Your task to perform on an android device: find which apps use the phone's location Image 0: 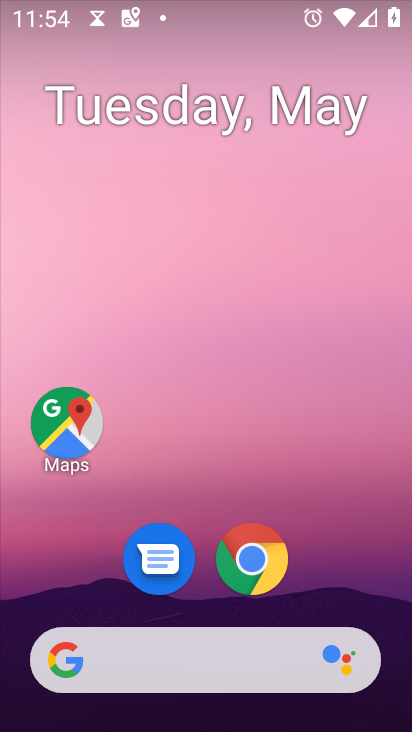
Step 0: drag from (363, 517) to (361, 56)
Your task to perform on an android device: find which apps use the phone's location Image 1: 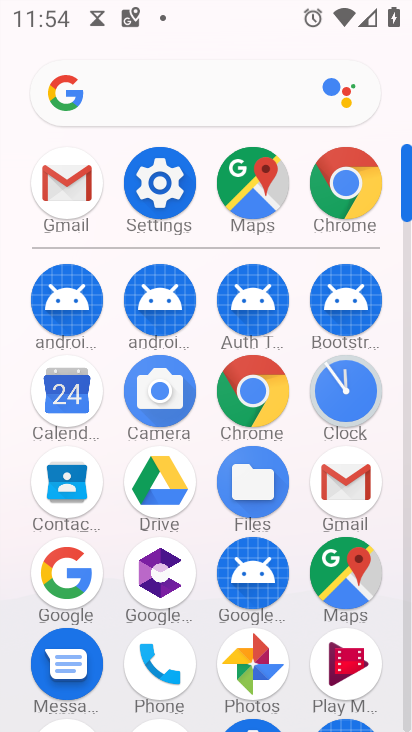
Step 1: click (173, 161)
Your task to perform on an android device: find which apps use the phone's location Image 2: 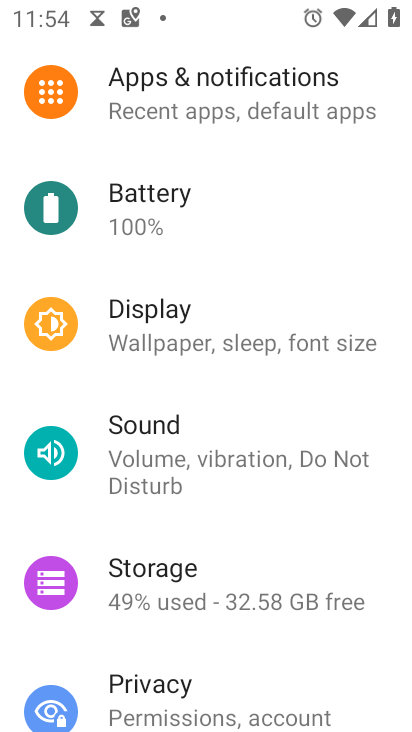
Step 2: drag from (237, 656) to (324, 106)
Your task to perform on an android device: find which apps use the phone's location Image 3: 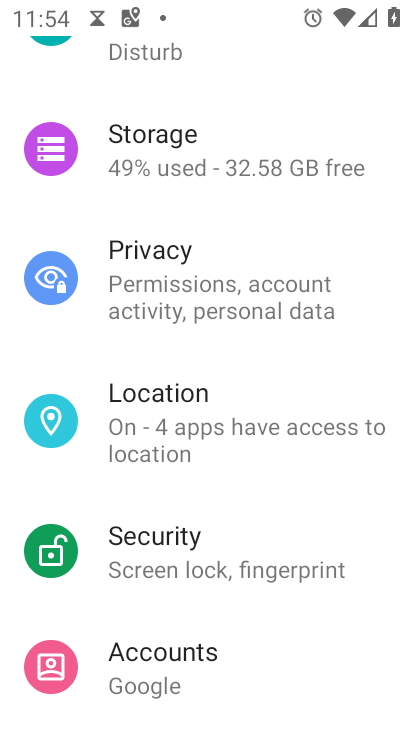
Step 3: click (226, 418)
Your task to perform on an android device: find which apps use the phone's location Image 4: 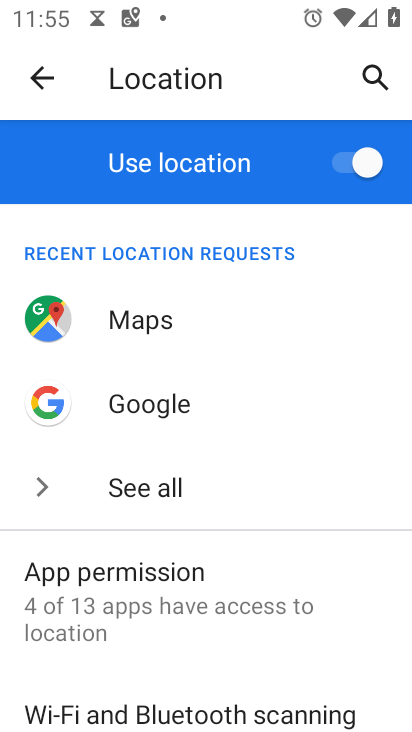
Step 4: drag from (199, 620) to (233, 175)
Your task to perform on an android device: find which apps use the phone's location Image 5: 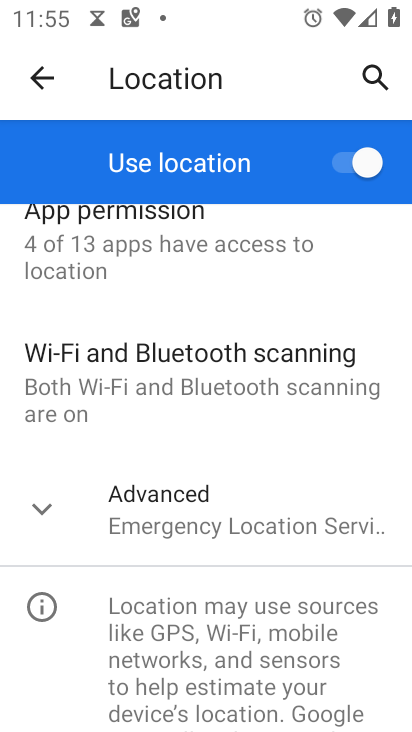
Step 5: drag from (225, 241) to (230, 656)
Your task to perform on an android device: find which apps use the phone's location Image 6: 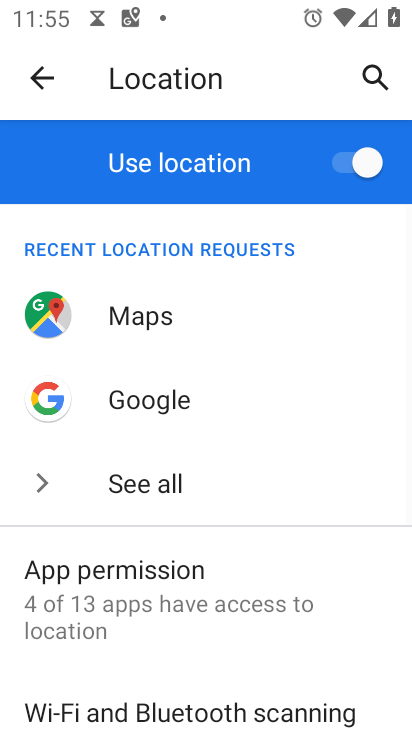
Step 6: click (49, 80)
Your task to perform on an android device: find which apps use the phone's location Image 7: 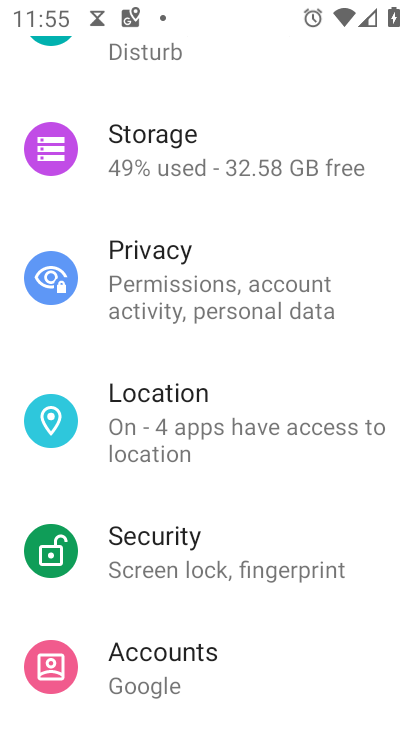
Step 7: drag from (258, 188) to (258, 650)
Your task to perform on an android device: find which apps use the phone's location Image 8: 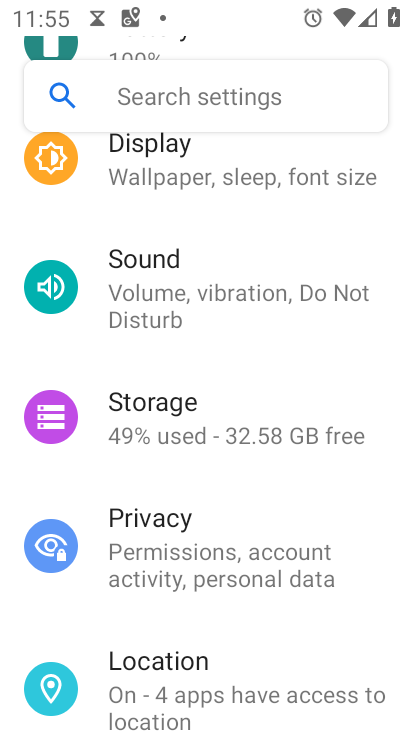
Step 8: drag from (285, 247) to (320, 659)
Your task to perform on an android device: find which apps use the phone's location Image 9: 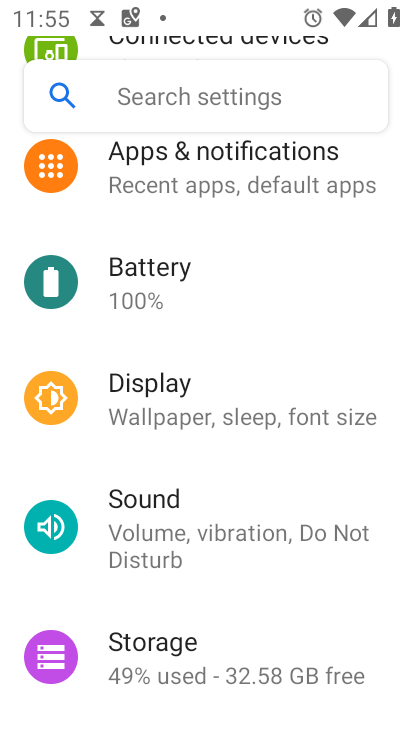
Step 9: drag from (269, 213) to (271, 660)
Your task to perform on an android device: find which apps use the phone's location Image 10: 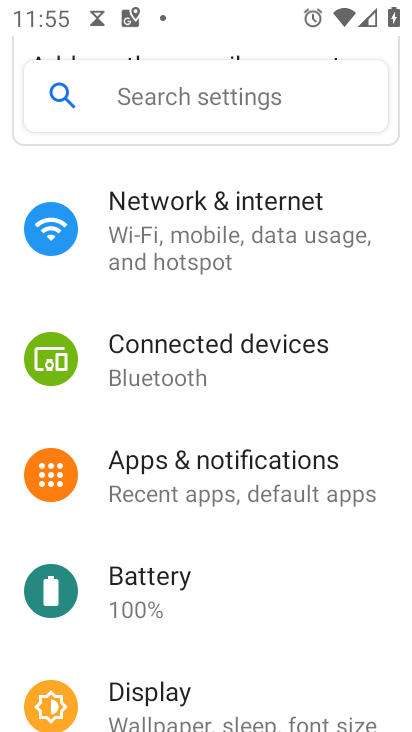
Step 10: drag from (268, 188) to (246, 725)
Your task to perform on an android device: find which apps use the phone's location Image 11: 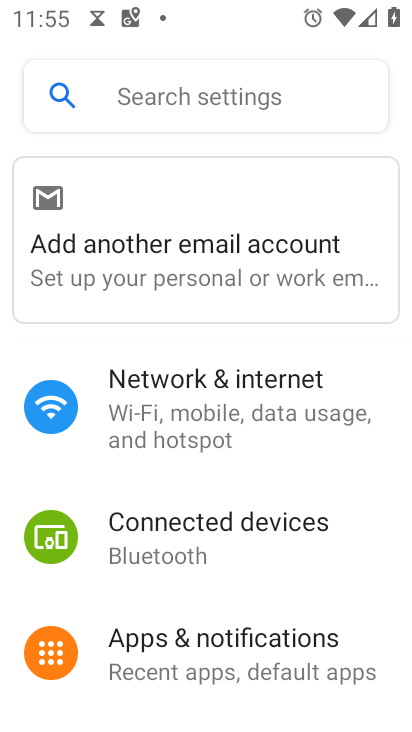
Step 11: click (185, 418)
Your task to perform on an android device: find which apps use the phone's location Image 12: 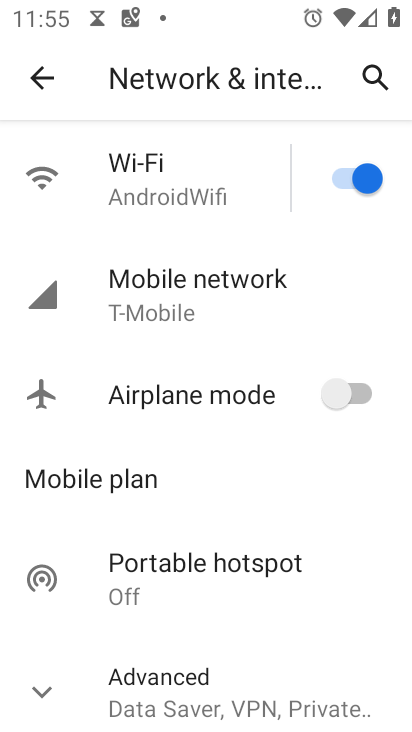
Step 12: click (209, 319)
Your task to perform on an android device: find which apps use the phone's location Image 13: 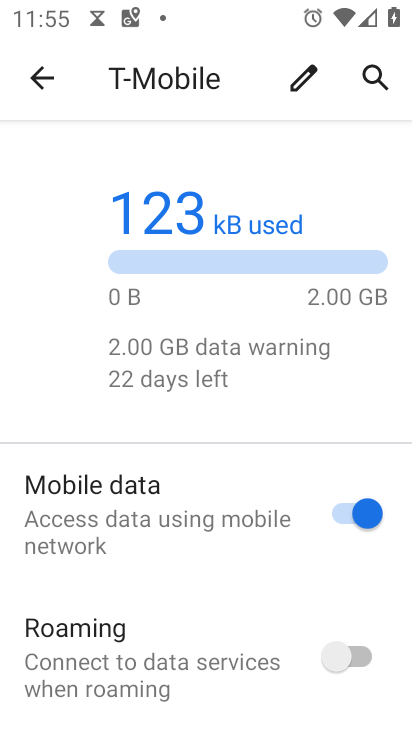
Step 13: task complete